Your task to perform on an android device: see tabs open on other devices in the chrome app Image 0: 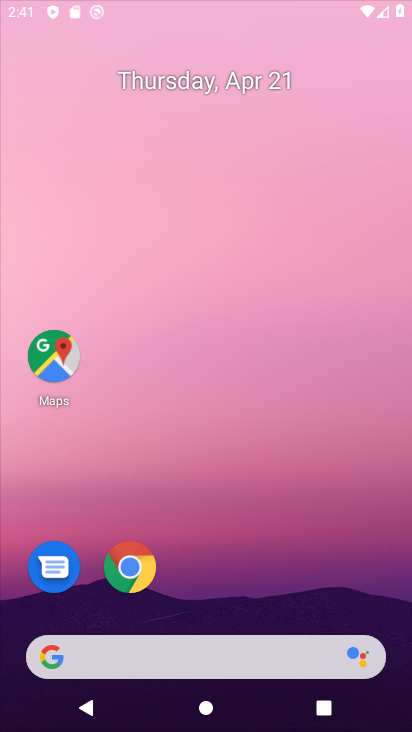
Step 0: drag from (273, 224) to (274, 186)
Your task to perform on an android device: see tabs open on other devices in the chrome app Image 1: 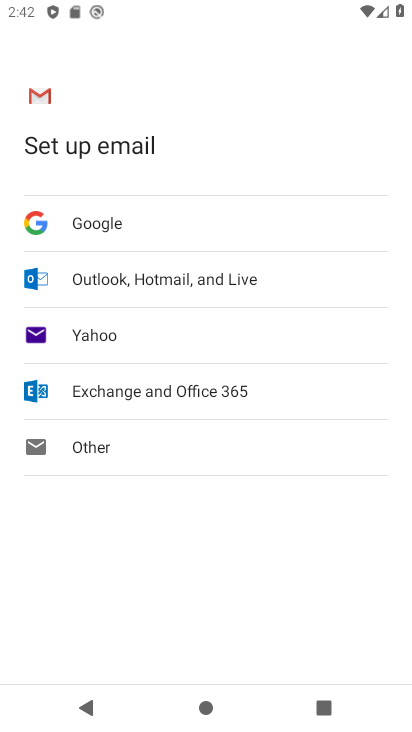
Step 1: press home button
Your task to perform on an android device: see tabs open on other devices in the chrome app Image 2: 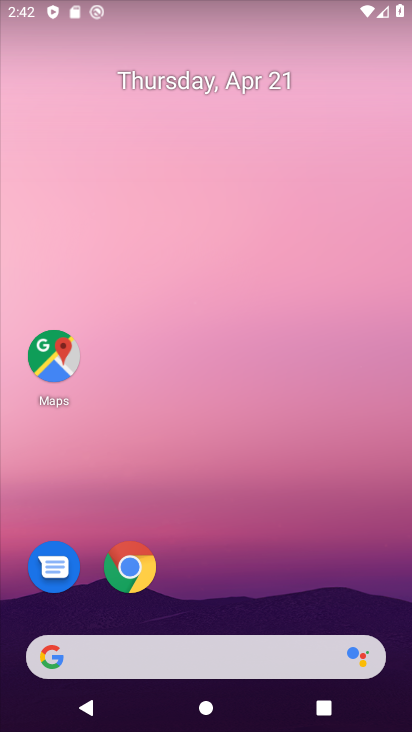
Step 2: click (127, 569)
Your task to perform on an android device: see tabs open on other devices in the chrome app Image 3: 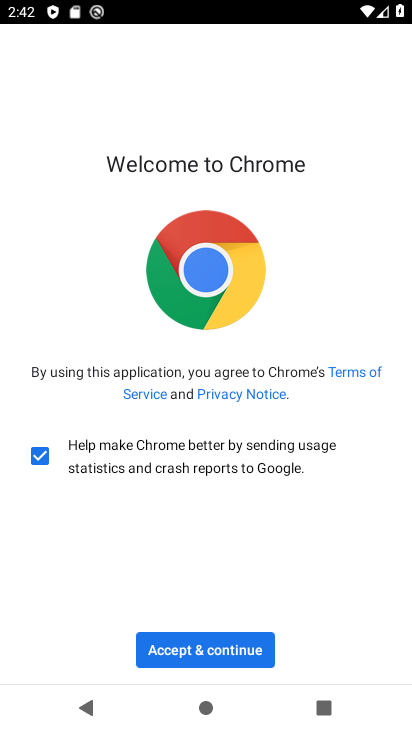
Step 3: click (179, 644)
Your task to perform on an android device: see tabs open on other devices in the chrome app Image 4: 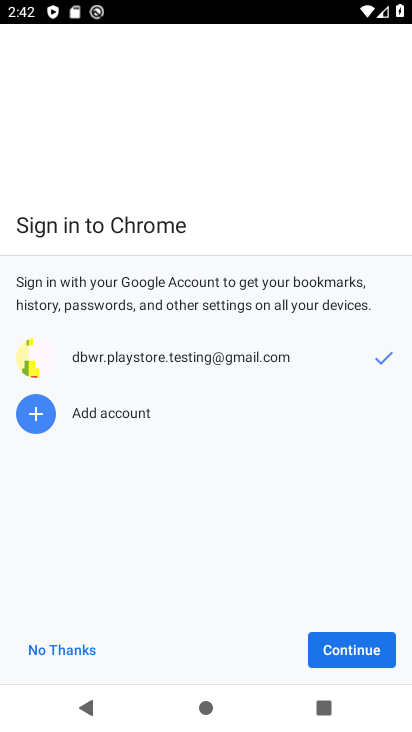
Step 4: click (348, 634)
Your task to perform on an android device: see tabs open on other devices in the chrome app Image 5: 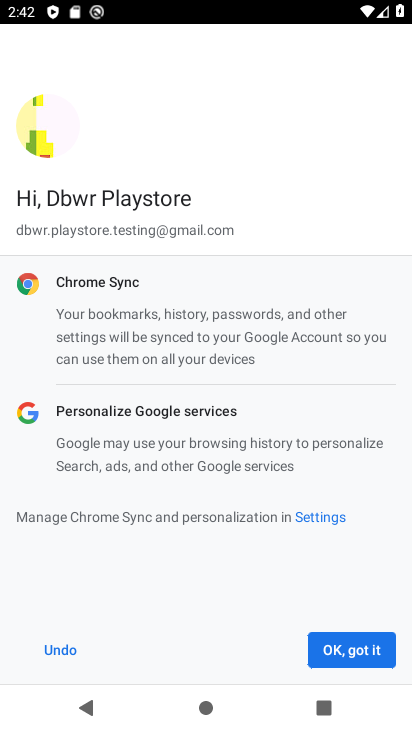
Step 5: click (350, 646)
Your task to perform on an android device: see tabs open on other devices in the chrome app Image 6: 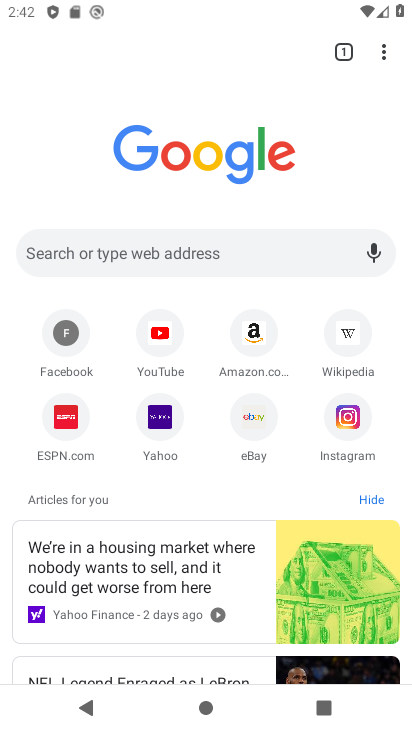
Step 6: click (376, 50)
Your task to perform on an android device: see tabs open on other devices in the chrome app Image 7: 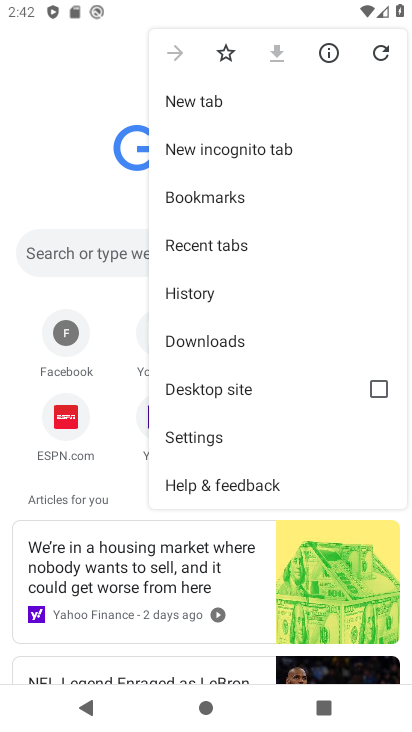
Step 7: click (237, 245)
Your task to perform on an android device: see tabs open on other devices in the chrome app Image 8: 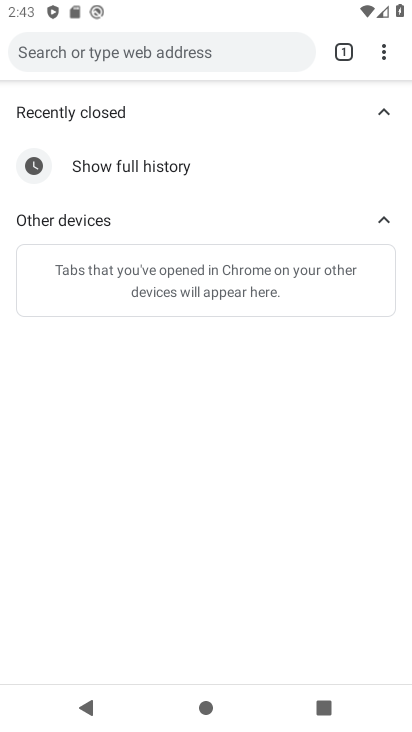
Step 8: click (161, 229)
Your task to perform on an android device: see tabs open on other devices in the chrome app Image 9: 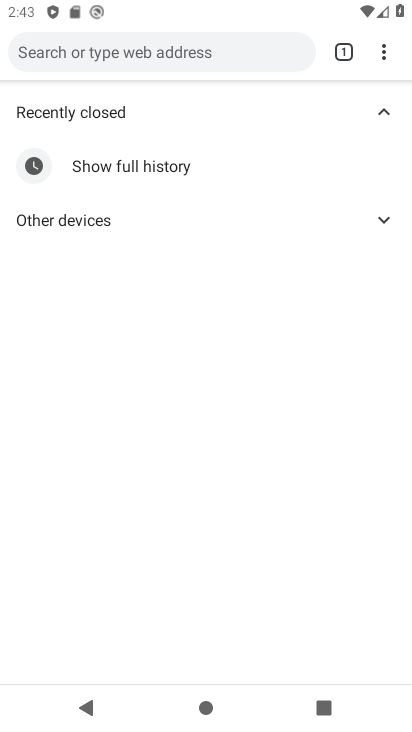
Step 9: task complete